Your task to perform on an android device: Go to Reddit.com Image 0: 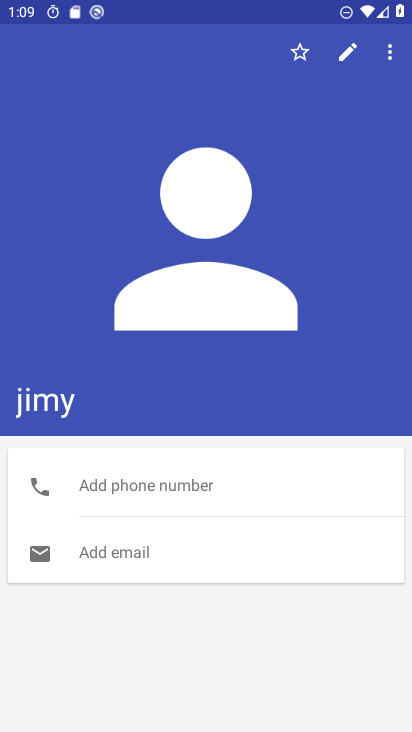
Step 0: press home button
Your task to perform on an android device: Go to Reddit.com Image 1: 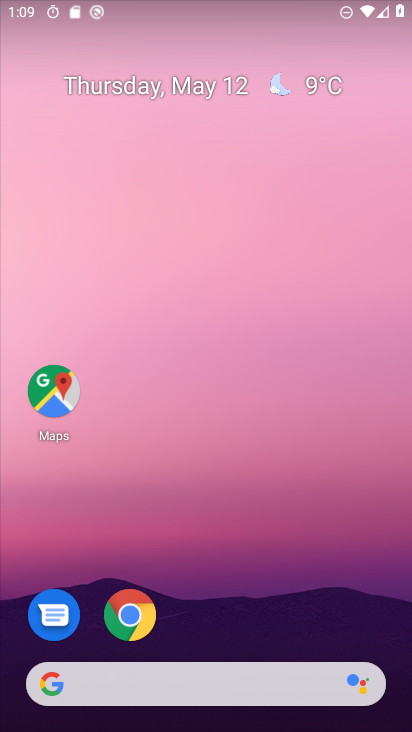
Step 1: click (140, 621)
Your task to perform on an android device: Go to Reddit.com Image 2: 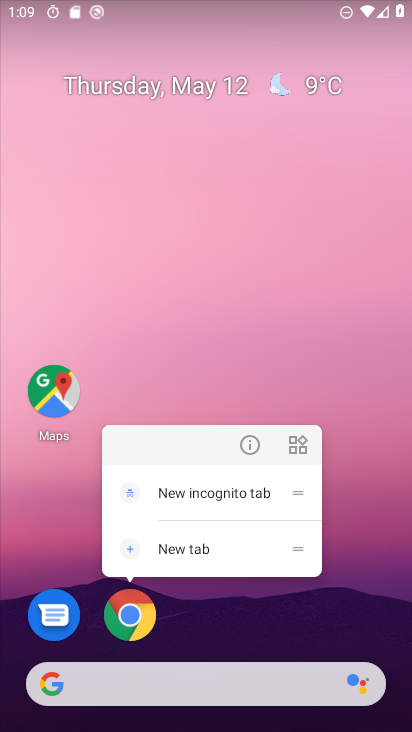
Step 2: click (140, 615)
Your task to perform on an android device: Go to Reddit.com Image 3: 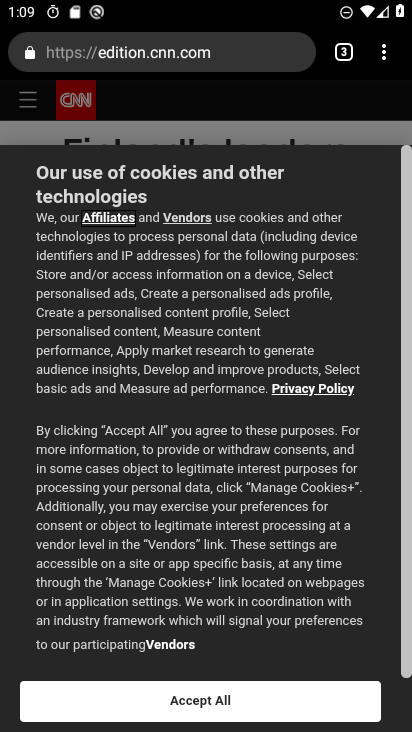
Step 3: click (169, 51)
Your task to perform on an android device: Go to Reddit.com Image 4: 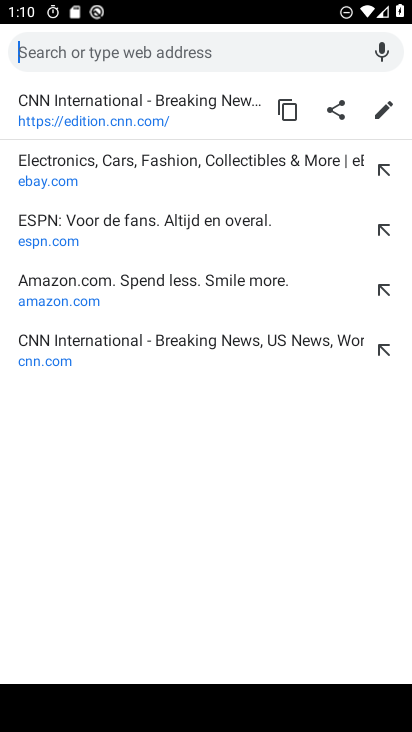
Step 4: type "reddit.com"
Your task to perform on an android device: Go to Reddit.com Image 5: 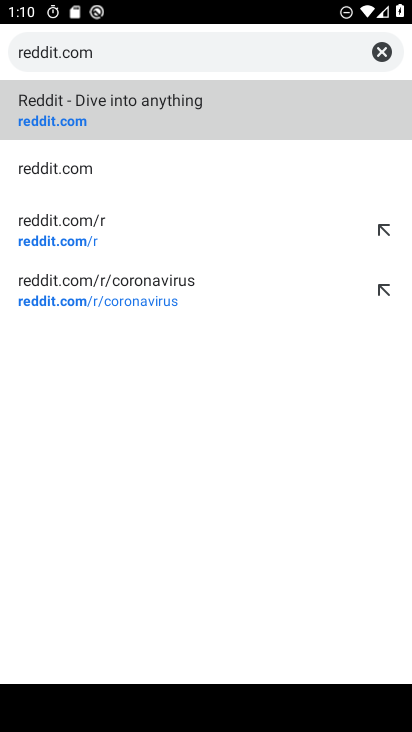
Step 5: click (68, 112)
Your task to perform on an android device: Go to Reddit.com Image 6: 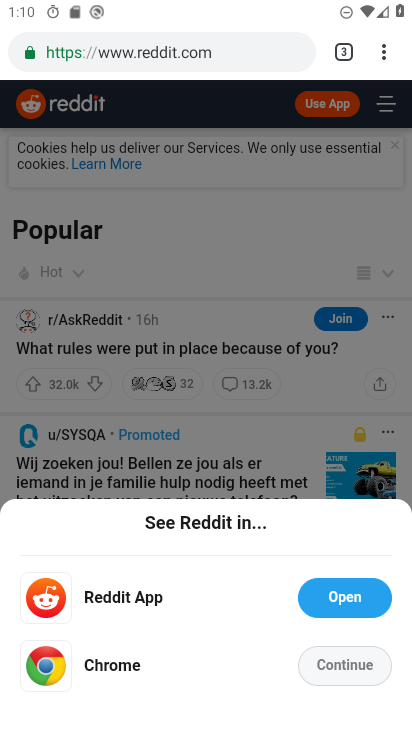
Step 6: task complete